Your task to perform on an android device: turn off picture-in-picture Image 0: 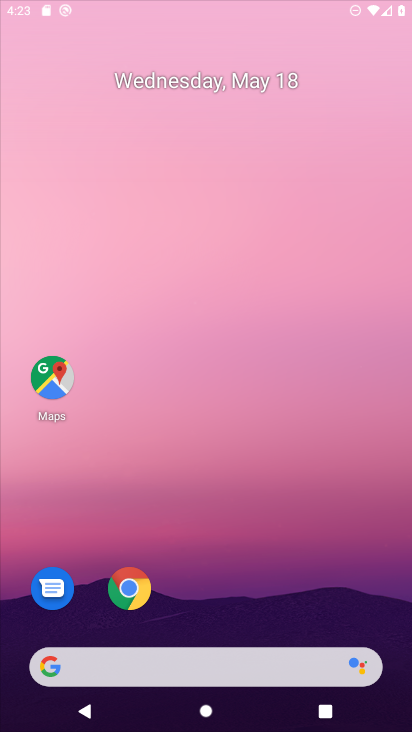
Step 0: drag from (246, 279) to (304, 64)
Your task to perform on an android device: turn off picture-in-picture Image 1: 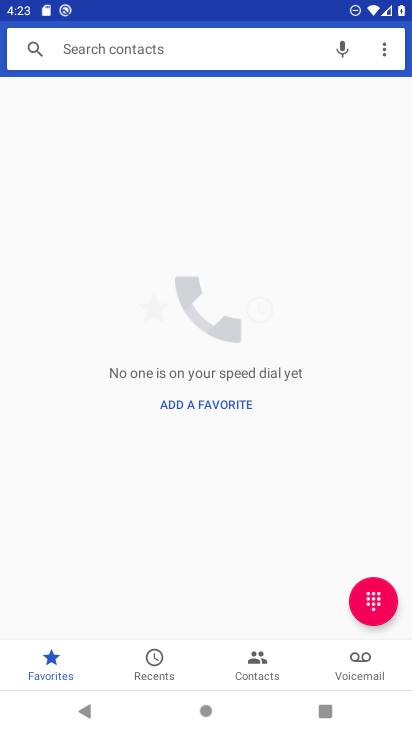
Step 1: press home button
Your task to perform on an android device: turn off picture-in-picture Image 2: 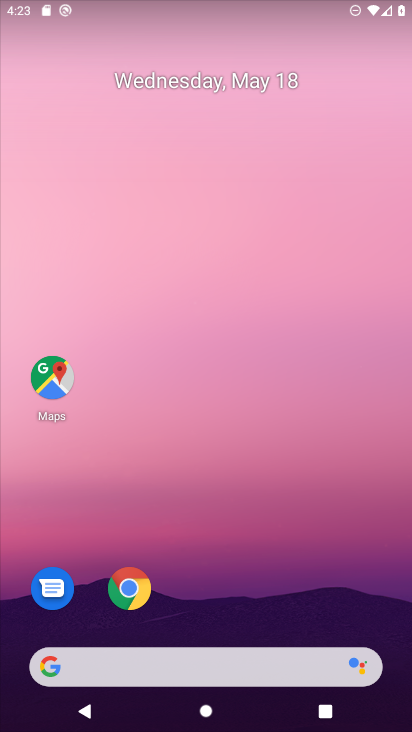
Step 2: drag from (219, 594) to (225, 96)
Your task to perform on an android device: turn off picture-in-picture Image 3: 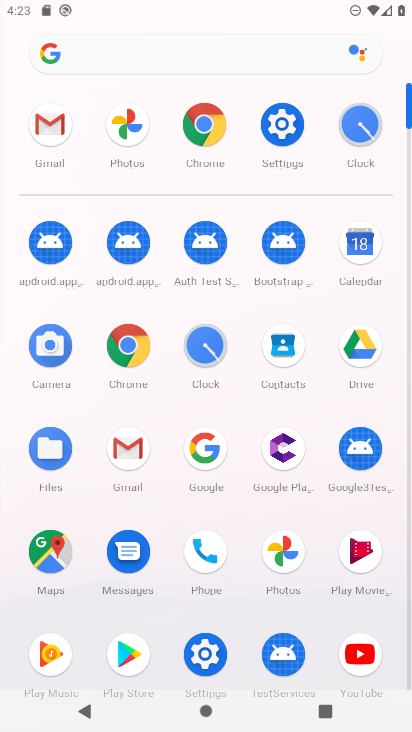
Step 3: click (273, 152)
Your task to perform on an android device: turn off picture-in-picture Image 4: 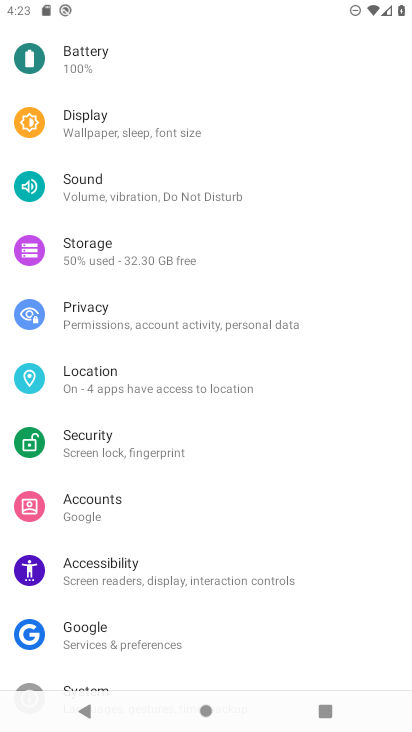
Step 4: drag from (172, 134) to (184, 556)
Your task to perform on an android device: turn off picture-in-picture Image 5: 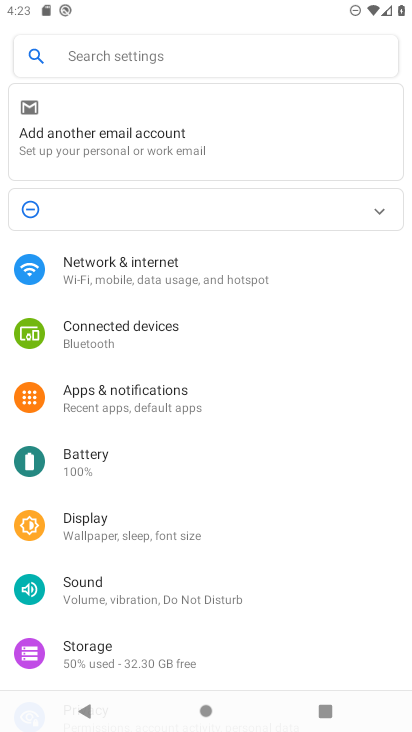
Step 5: click (185, 403)
Your task to perform on an android device: turn off picture-in-picture Image 6: 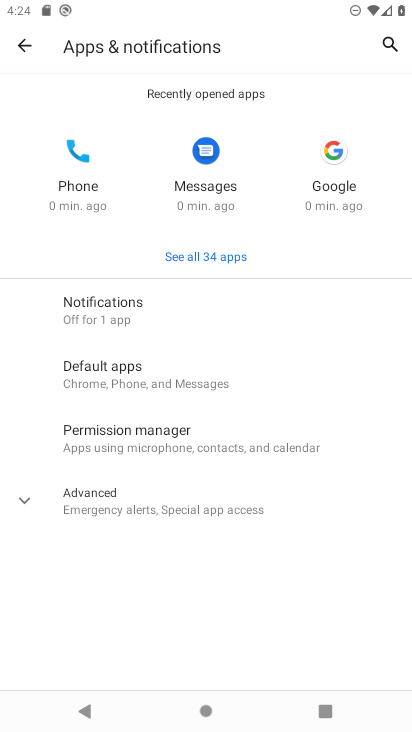
Step 6: click (174, 496)
Your task to perform on an android device: turn off picture-in-picture Image 7: 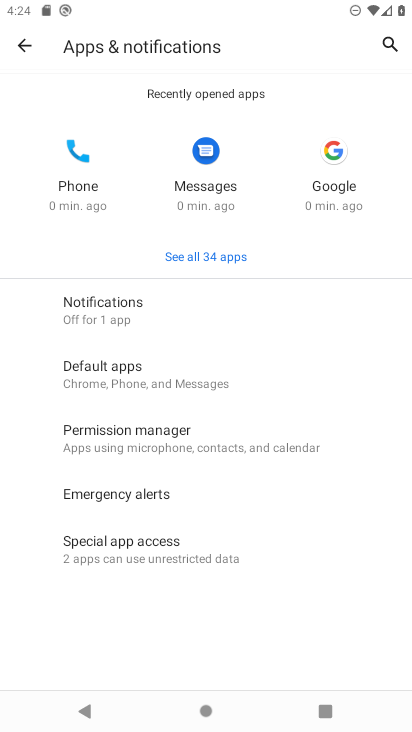
Step 7: click (223, 539)
Your task to perform on an android device: turn off picture-in-picture Image 8: 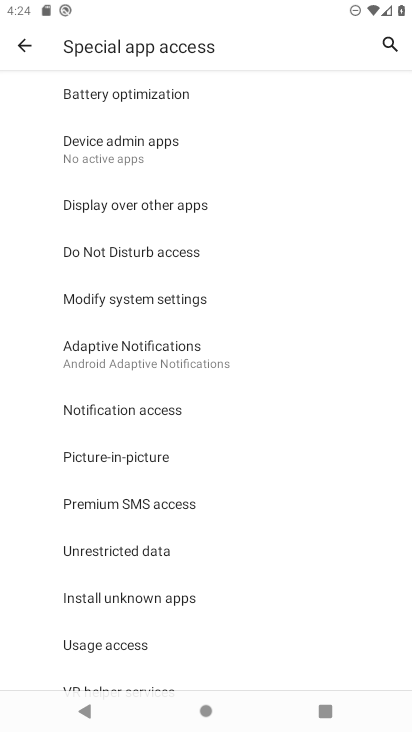
Step 8: click (193, 445)
Your task to perform on an android device: turn off picture-in-picture Image 9: 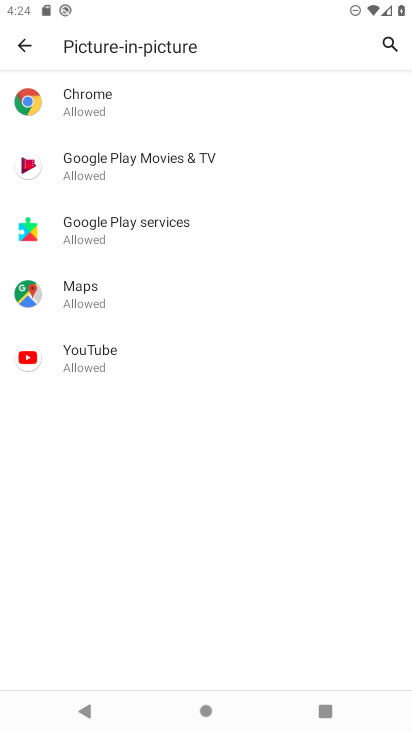
Step 9: click (287, 94)
Your task to perform on an android device: turn off picture-in-picture Image 10: 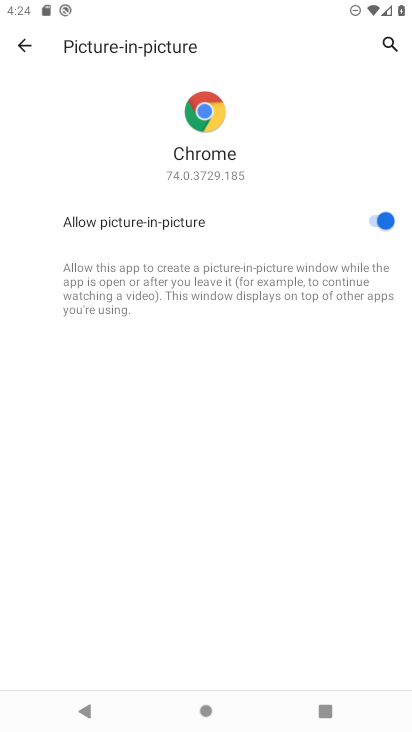
Step 10: click (384, 232)
Your task to perform on an android device: turn off picture-in-picture Image 11: 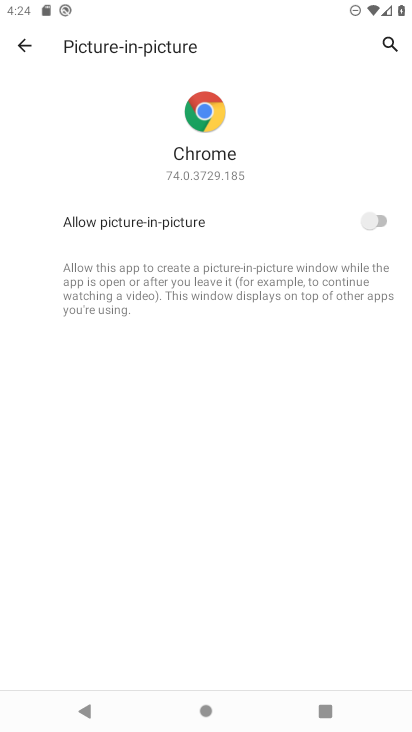
Step 11: task complete